Your task to perform on an android device: find photos in the google photos app Image 0: 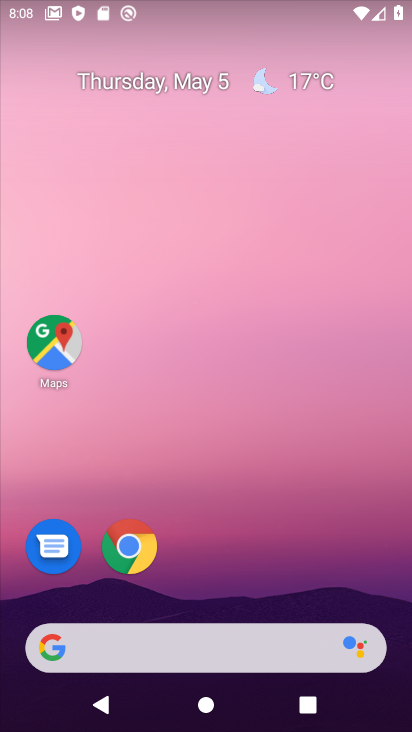
Step 0: drag from (180, 645) to (331, 233)
Your task to perform on an android device: find photos in the google photos app Image 1: 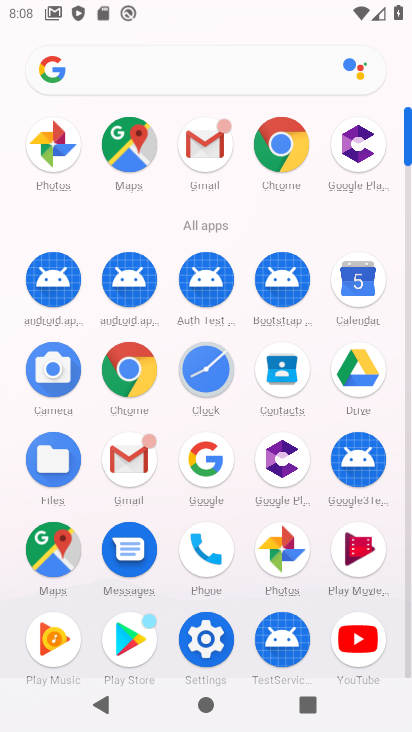
Step 1: click (58, 148)
Your task to perform on an android device: find photos in the google photos app Image 2: 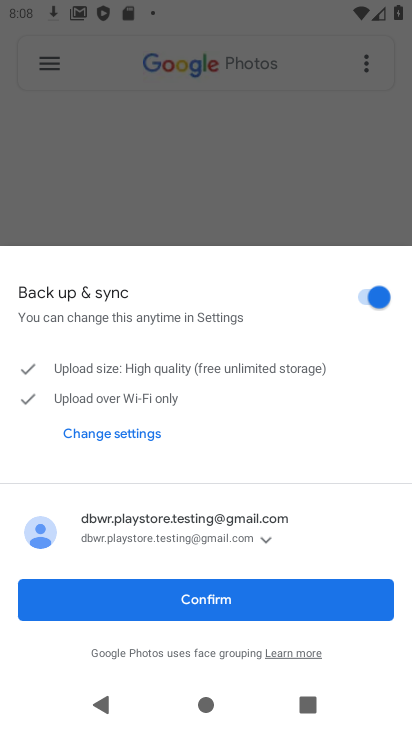
Step 2: click (220, 600)
Your task to perform on an android device: find photos in the google photos app Image 3: 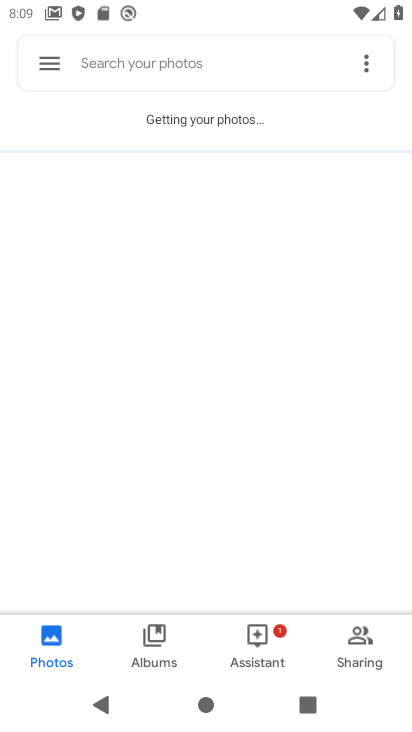
Step 3: click (60, 662)
Your task to perform on an android device: find photos in the google photos app Image 4: 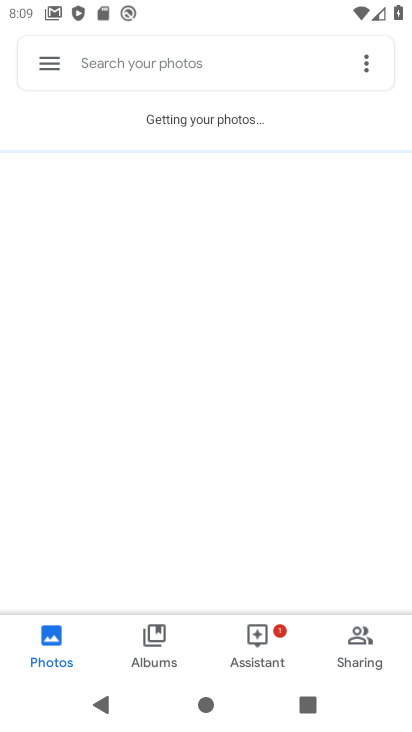
Step 4: task complete